Your task to perform on an android device: What's the weather going to be this weekend? Image 0: 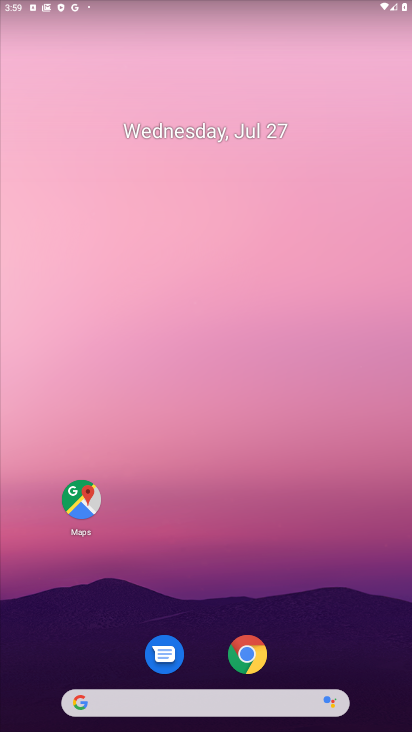
Step 0: drag from (231, 617) to (250, 41)
Your task to perform on an android device: What's the weather going to be this weekend? Image 1: 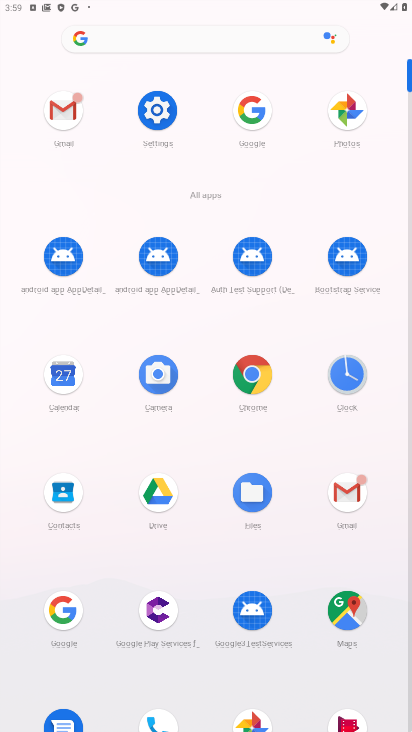
Step 1: click (256, 118)
Your task to perform on an android device: What's the weather going to be this weekend? Image 2: 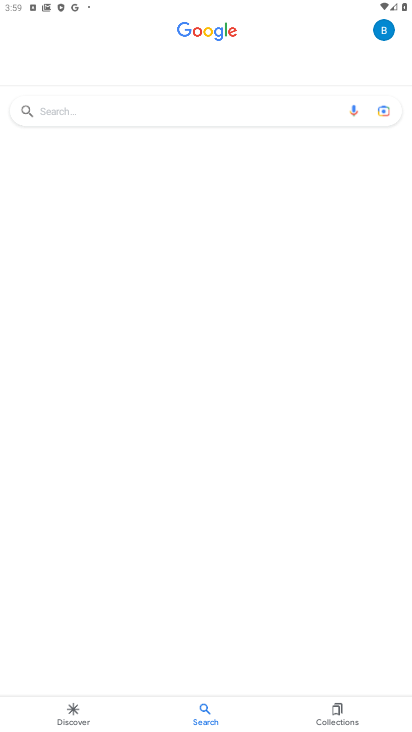
Step 2: click (93, 111)
Your task to perform on an android device: What's the weather going to be this weekend? Image 3: 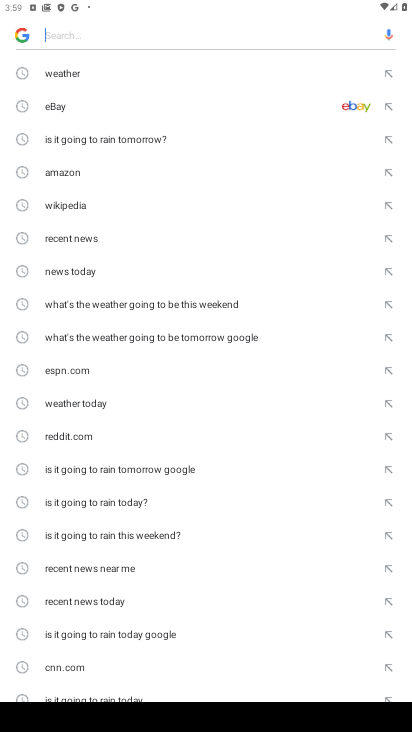
Step 3: click (139, 303)
Your task to perform on an android device: What's the weather going to be this weekend? Image 4: 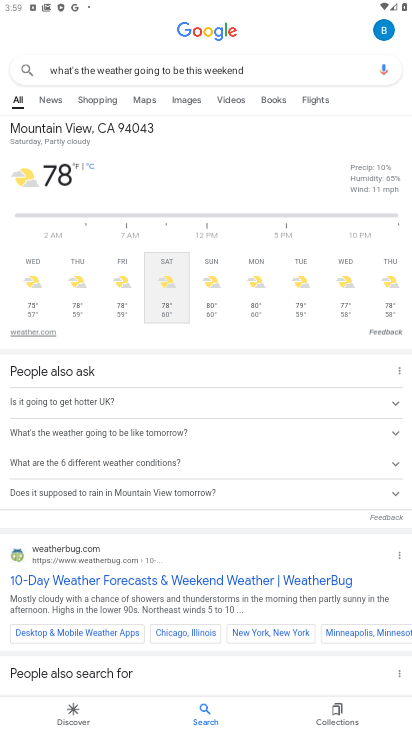
Step 4: task complete